Your task to perform on an android device: turn on bluetooth scan Image 0: 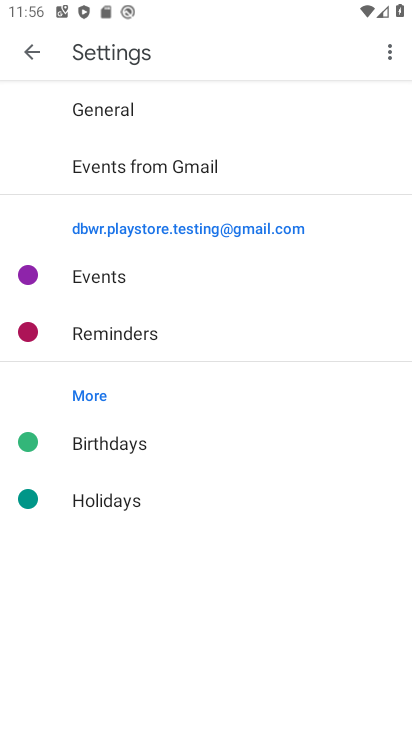
Step 0: task complete